Your task to perform on an android device: change timer sound Image 0: 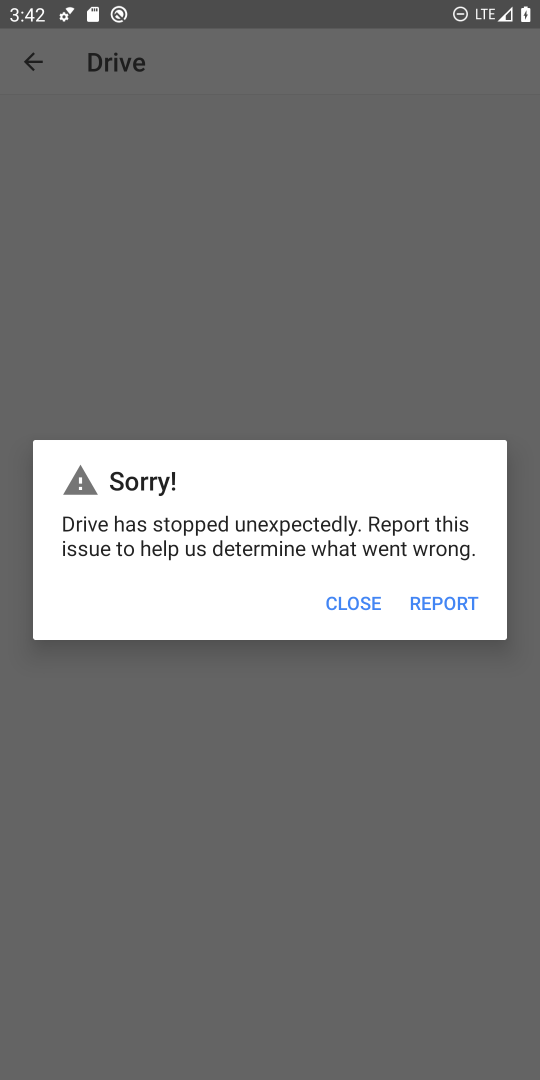
Step 0: press home button
Your task to perform on an android device: change timer sound Image 1: 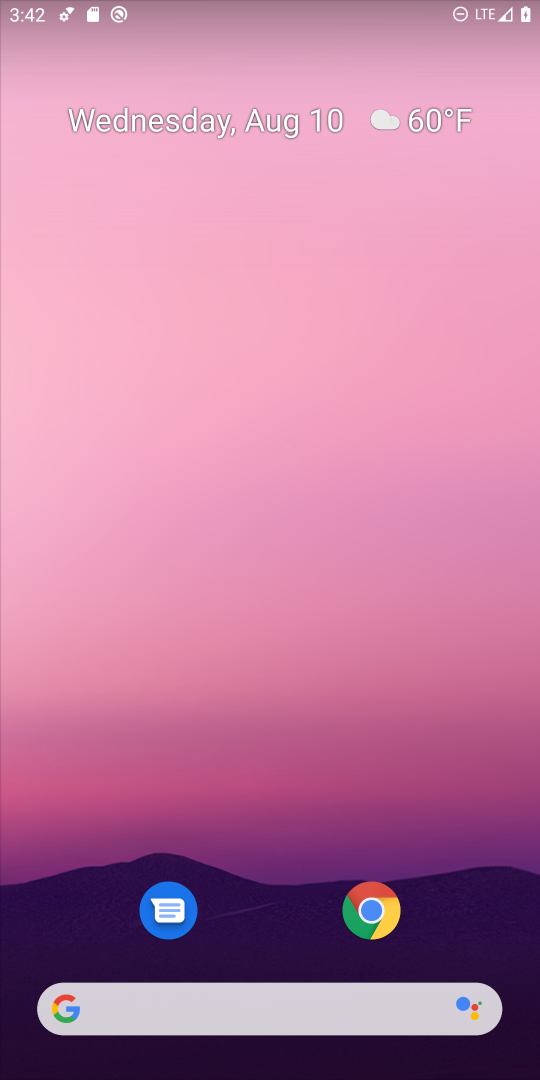
Step 1: drag from (307, 948) to (327, 79)
Your task to perform on an android device: change timer sound Image 2: 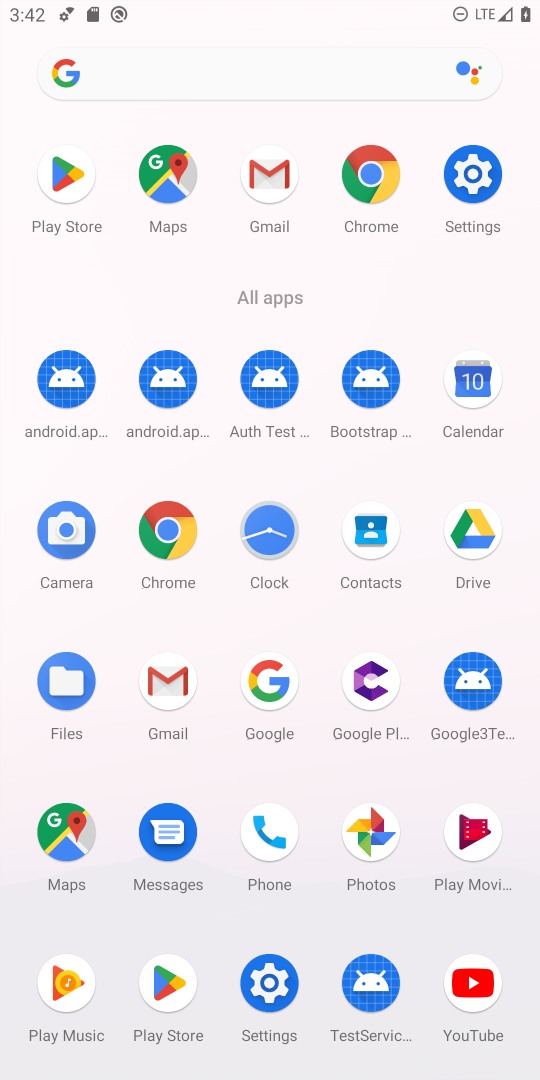
Step 2: click (462, 197)
Your task to perform on an android device: change timer sound Image 3: 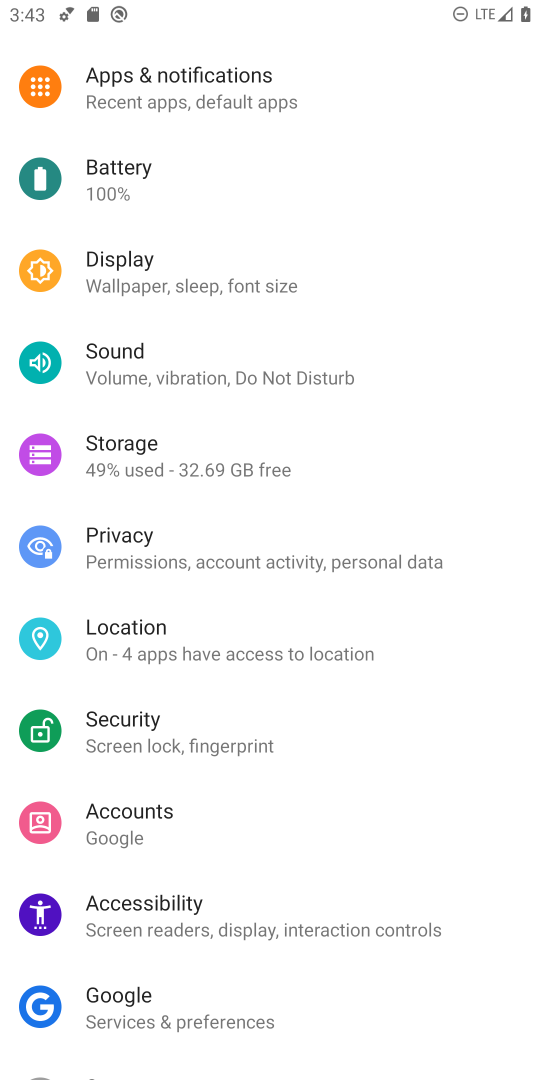
Step 3: press home button
Your task to perform on an android device: change timer sound Image 4: 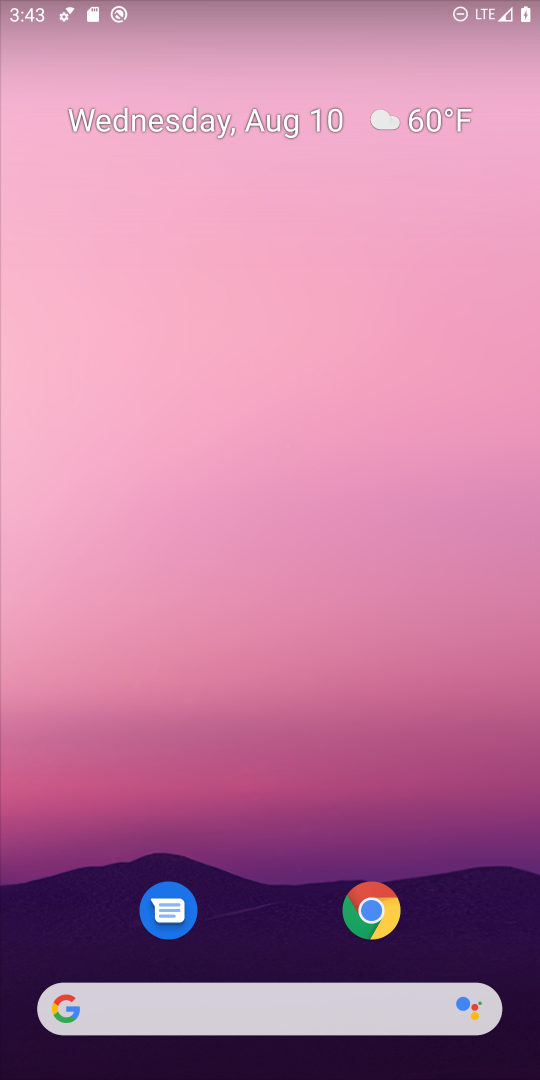
Step 4: drag from (293, 942) to (246, 0)
Your task to perform on an android device: change timer sound Image 5: 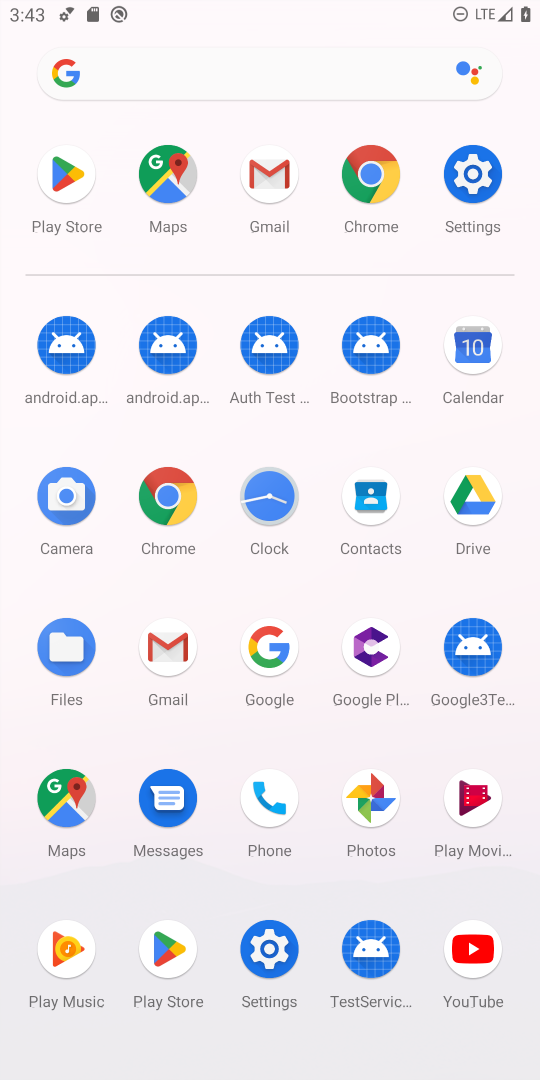
Step 5: click (475, 364)
Your task to perform on an android device: change timer sound Image 6: 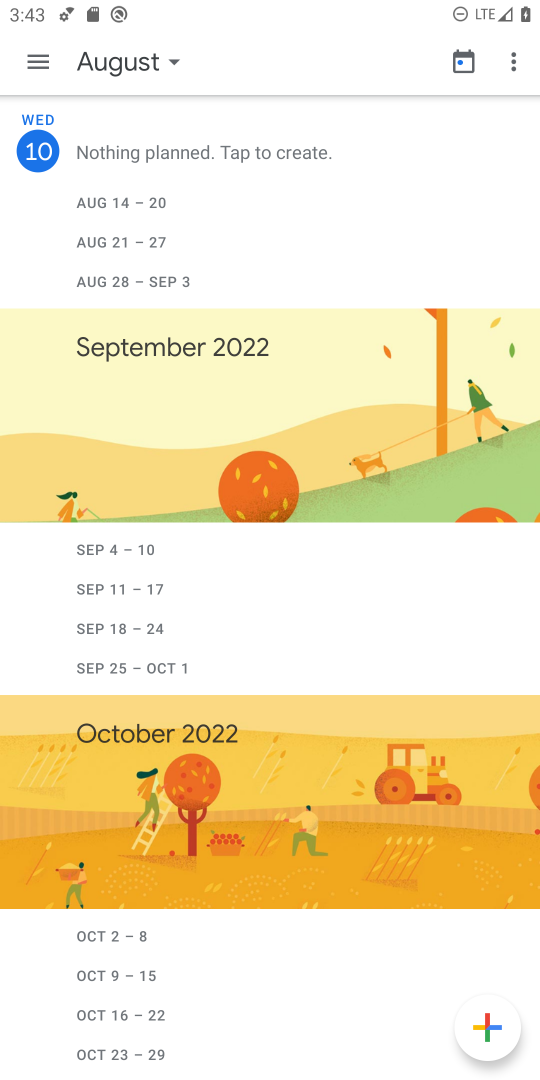
Step 6: press back button
Your task to perform on an android device: change timer sound Image 7: 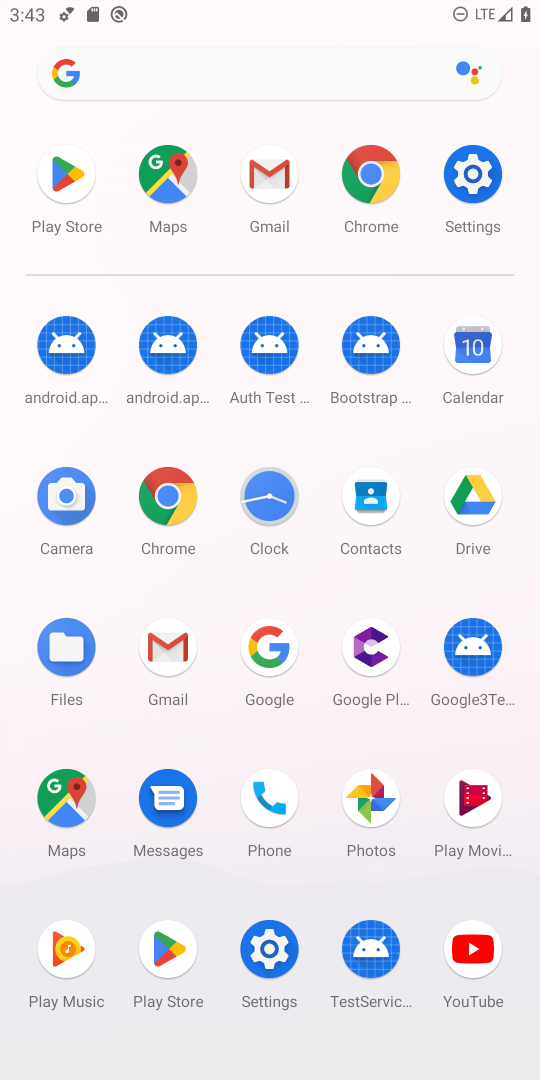
Step 7: click (281, 498)
Your task to perform on an android device: change timer sound Image 8: 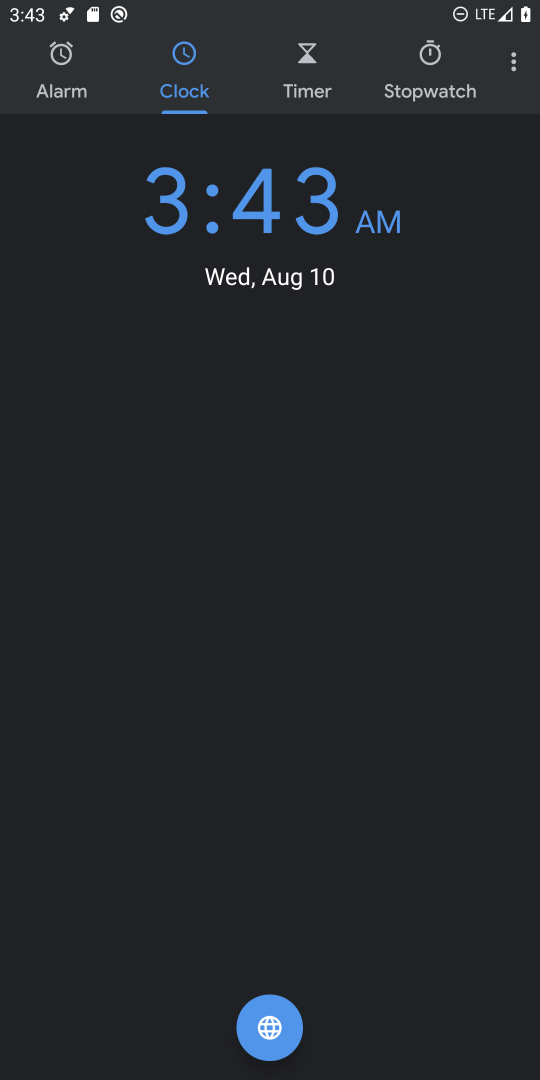
Step 8: click (509, 57)
Your task to perform on an android device: change timer sound Image 9: 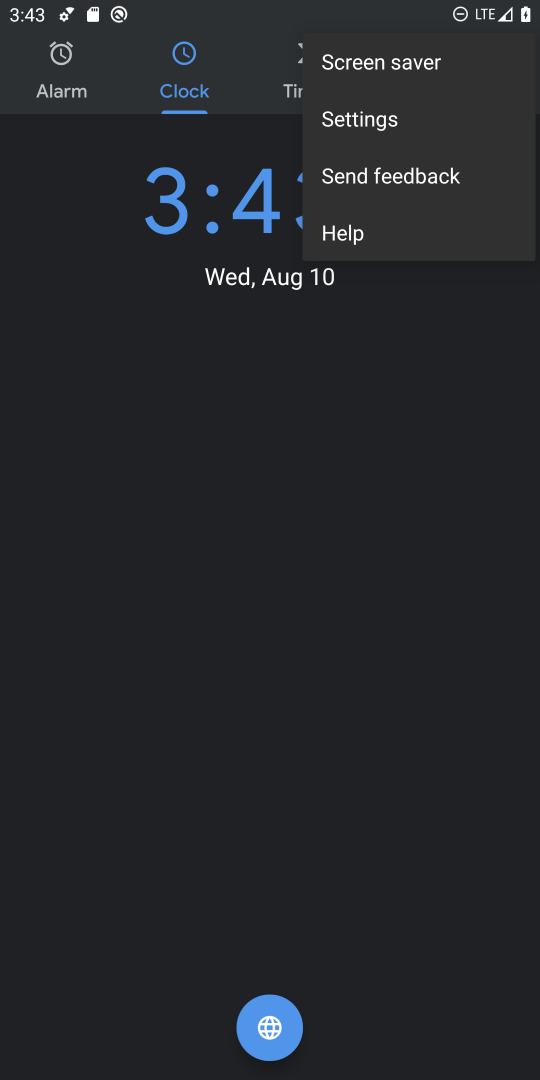
Step 9: click (319, 125)
Your task to perform on an android device: change timer sound Image 10: 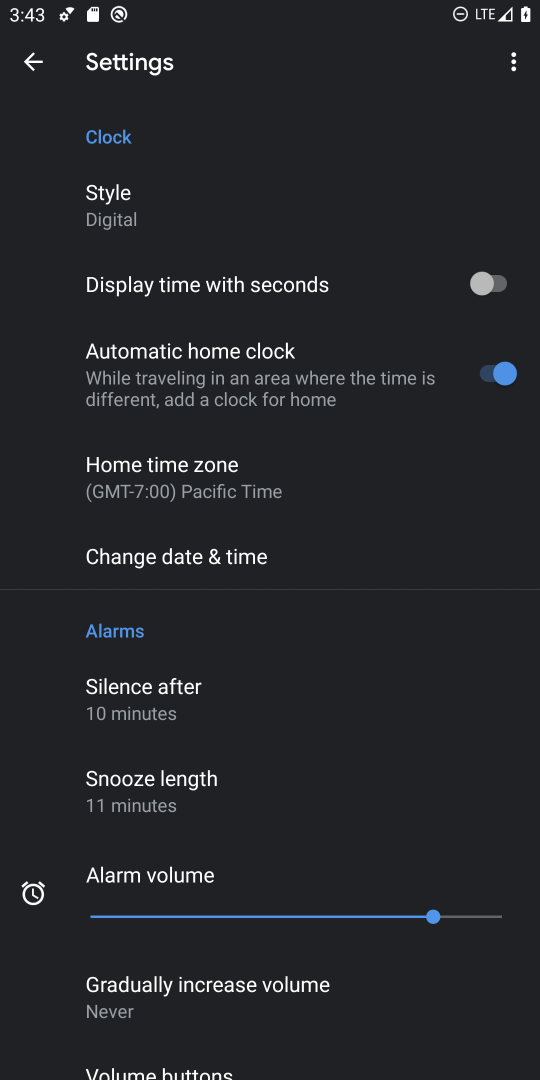
Step 10: drag from (369, 788) to (336, 276)
Your task to perform on an android device: change timer sound Image 11: 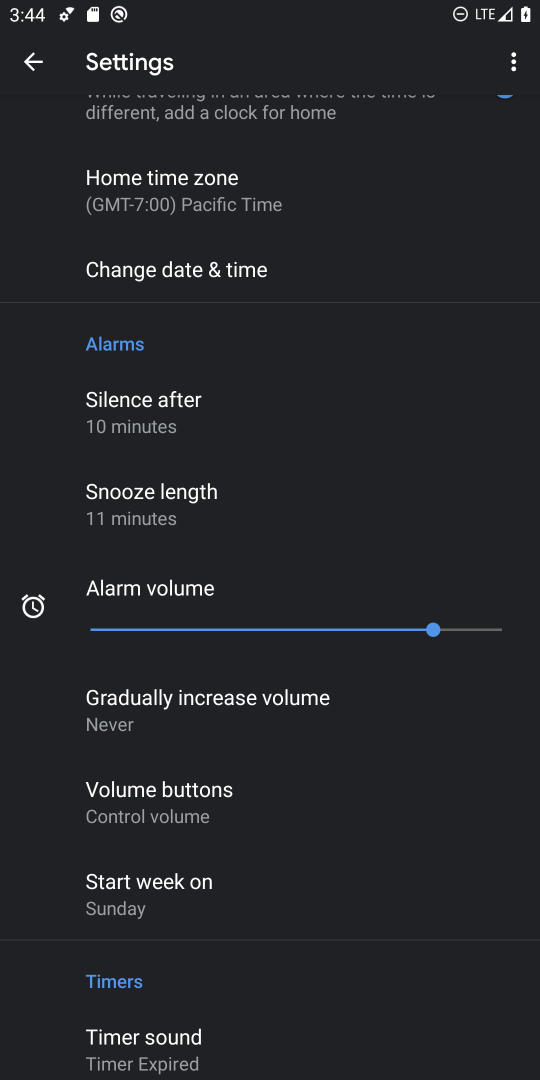
Step 11: click (182, 1052)
Your task to perform on an android device: change timer sound Image 12: 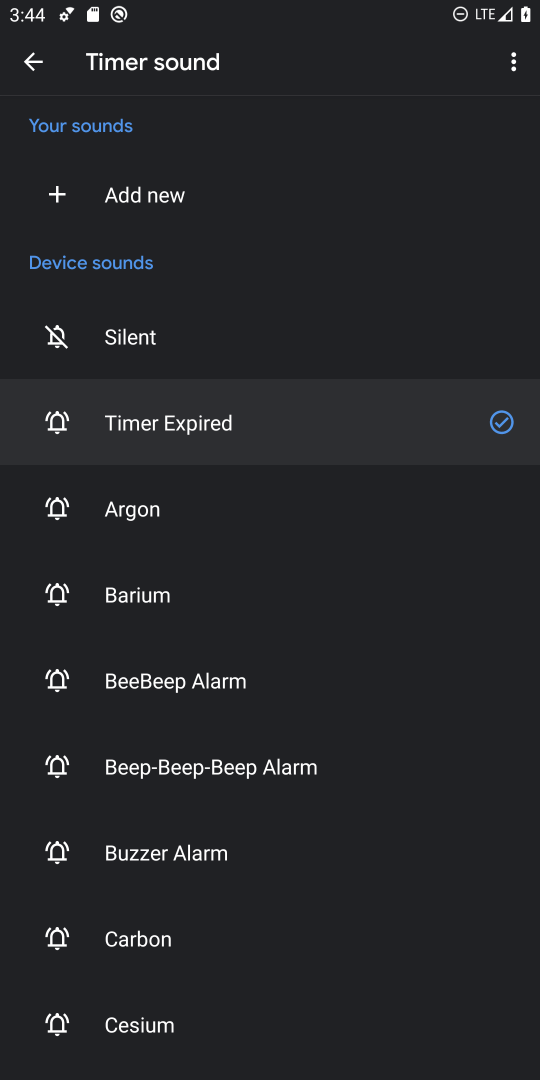
Step 12: click (177, 723)
Your task to perform on an android device: change timer sound Image 13: 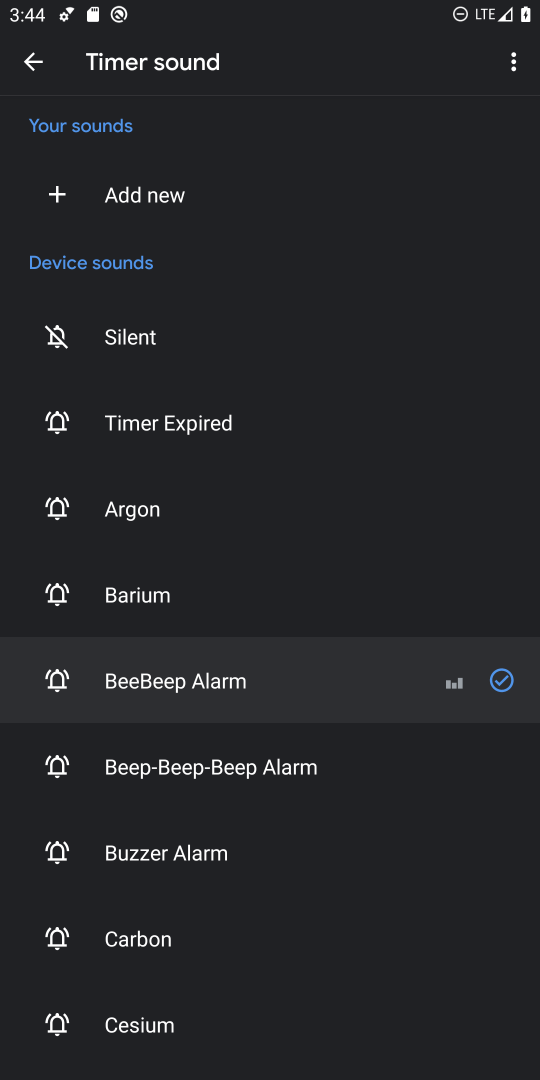
Step 13: click (129, 766)
Your task to perform on an android device: change timer sound Image 14: 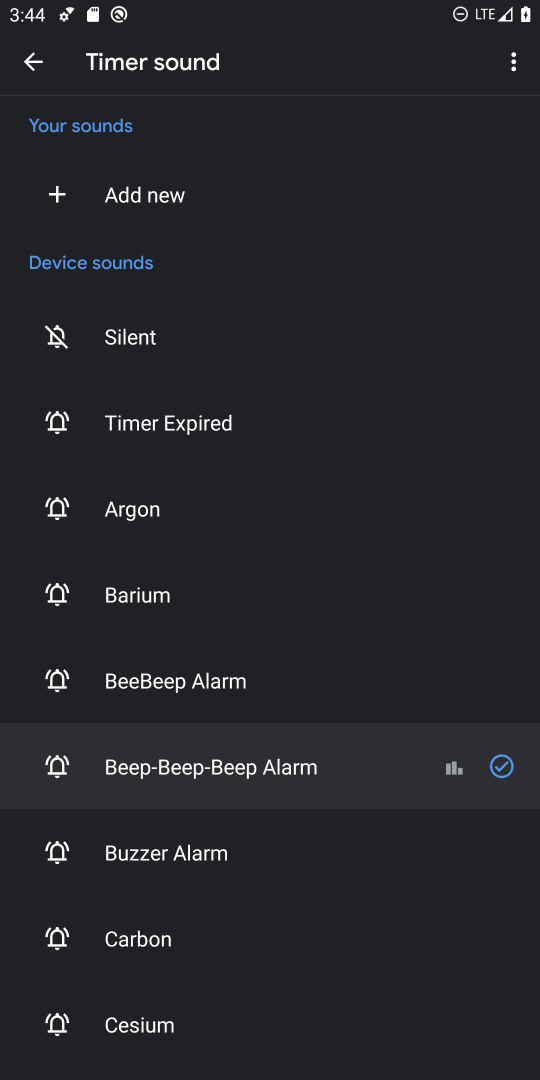
Step 14: task complete